Your task to perform on an android device: open app "Airtel Thanks" (install if not already installed) Image 0: 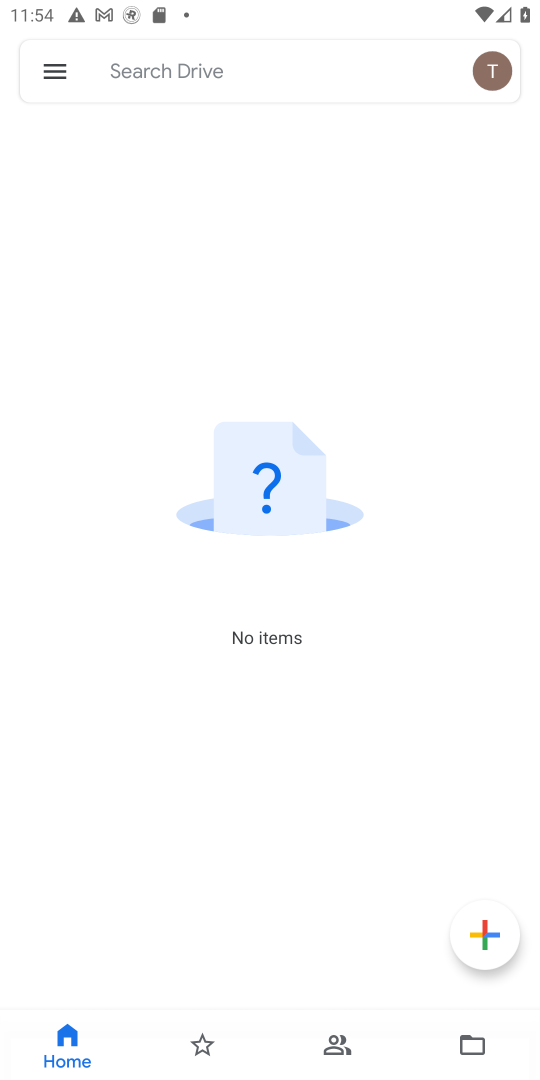
Step 0: press home button
Your task to perform on an android device: open app "Airtel Thanks" (install if not already installed) Image 1: 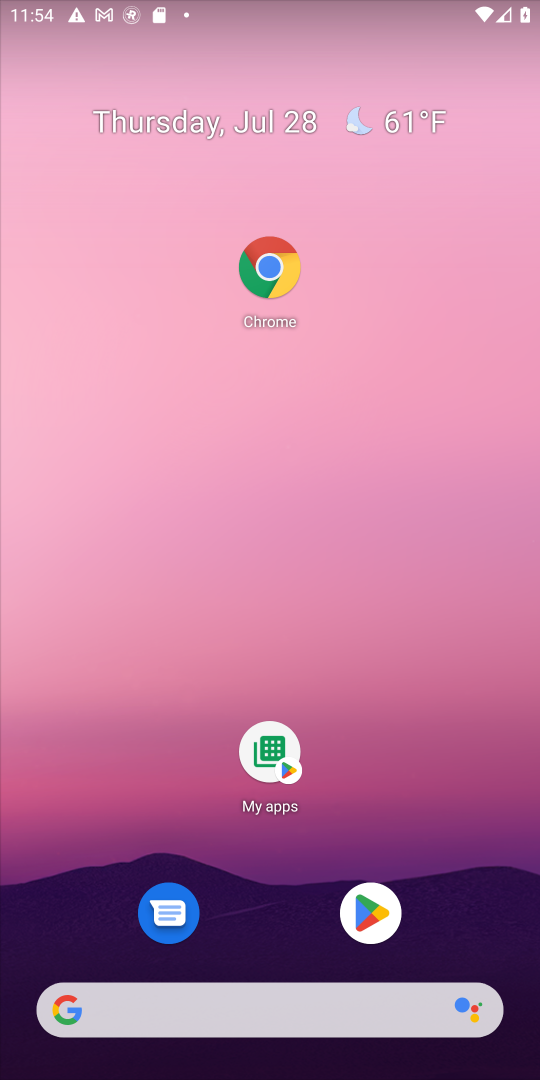
Step 1: drag from (348, 1040) to (357, 514)
Your task to perform on an android device: open app "Airtel Thanks" (install if not already installed) Image 2: 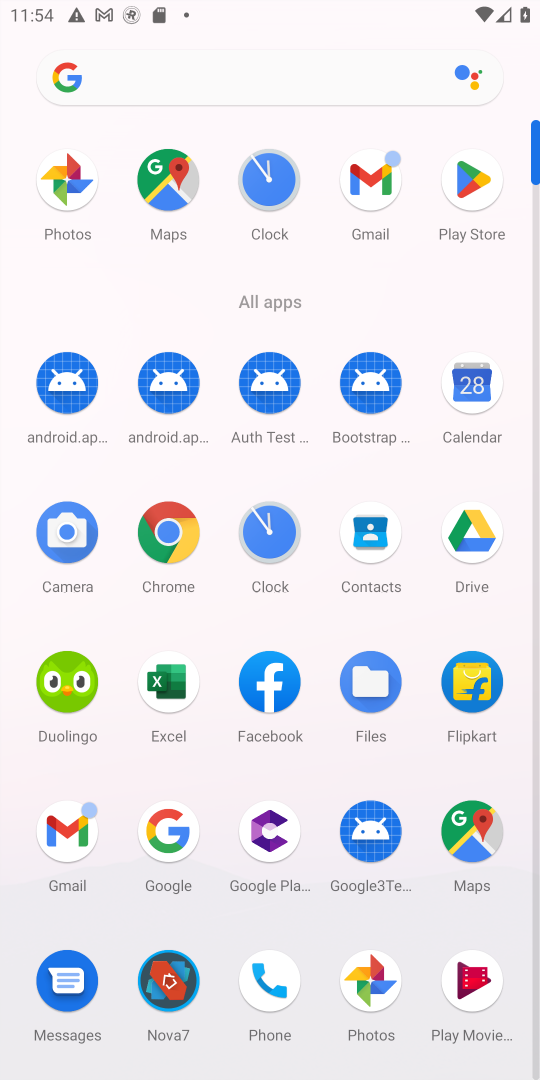
Step 2: click (469, 193)
Your task to perform on an android device: open app "Airtel Thanks" (install if not already installed) Image 3: 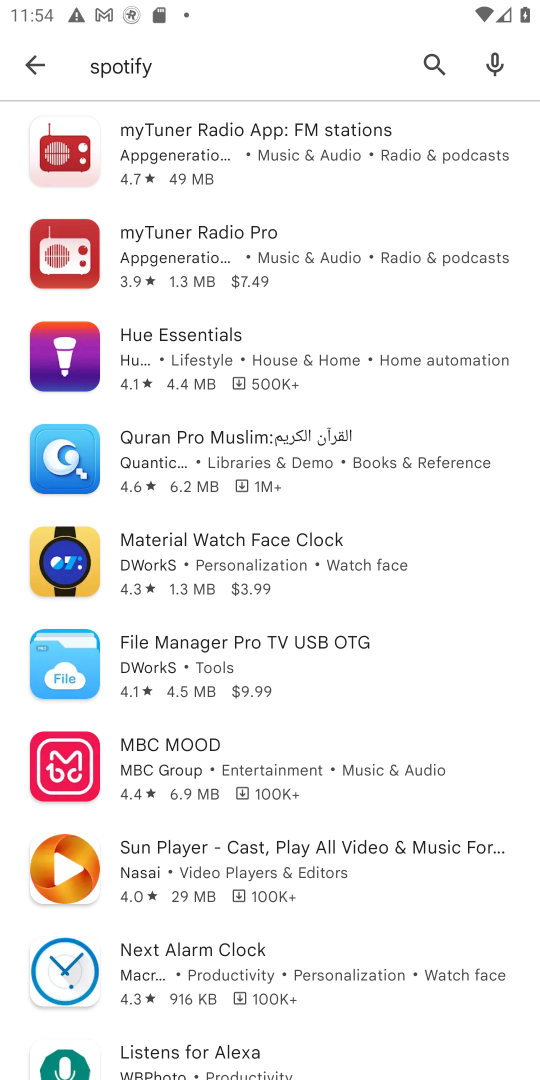
Step 3: click (412, 46)
Your task to perform on an android device: open app "Airtel Thanks" (install if not already installed) Image 4: 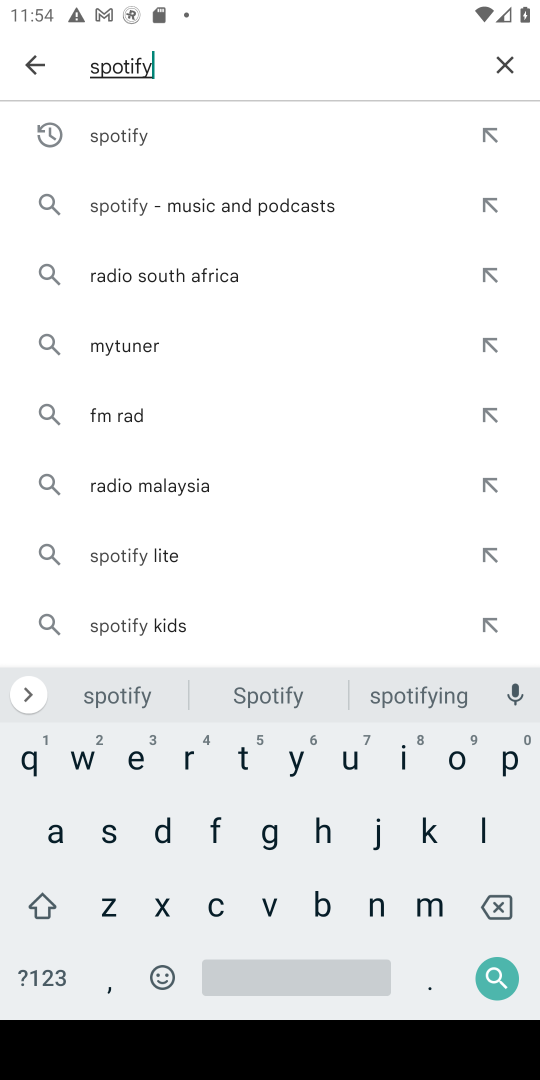
Step 4: click (511, 63)
Your task to perform on an android device: open app "Airtel Thanks" (install if not already installed) Image 5: 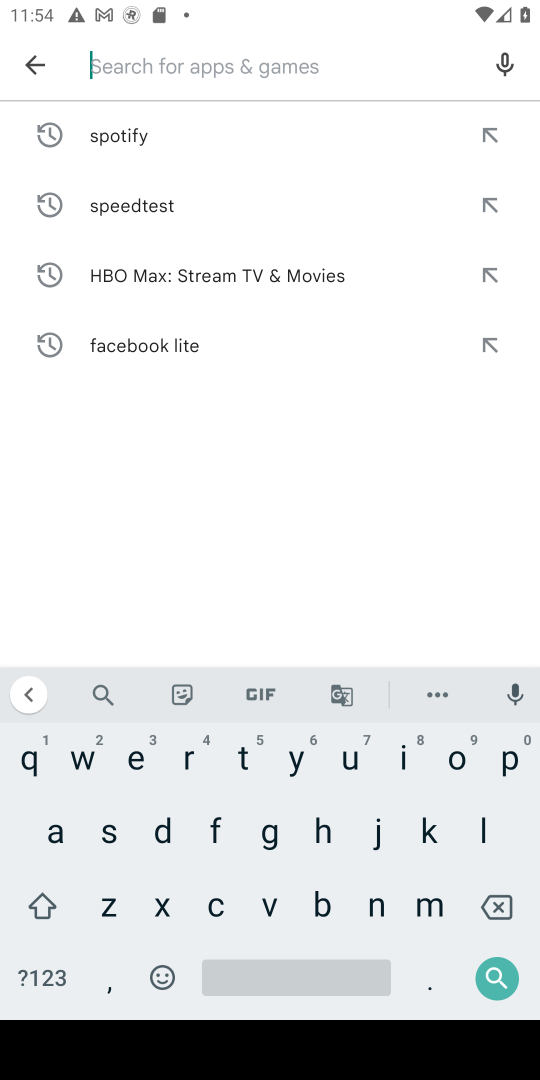
Step 5: click (46, 831)
Your task to perform on an android device: open app "Airtel Thanks" (install if not already installed) Image 6: 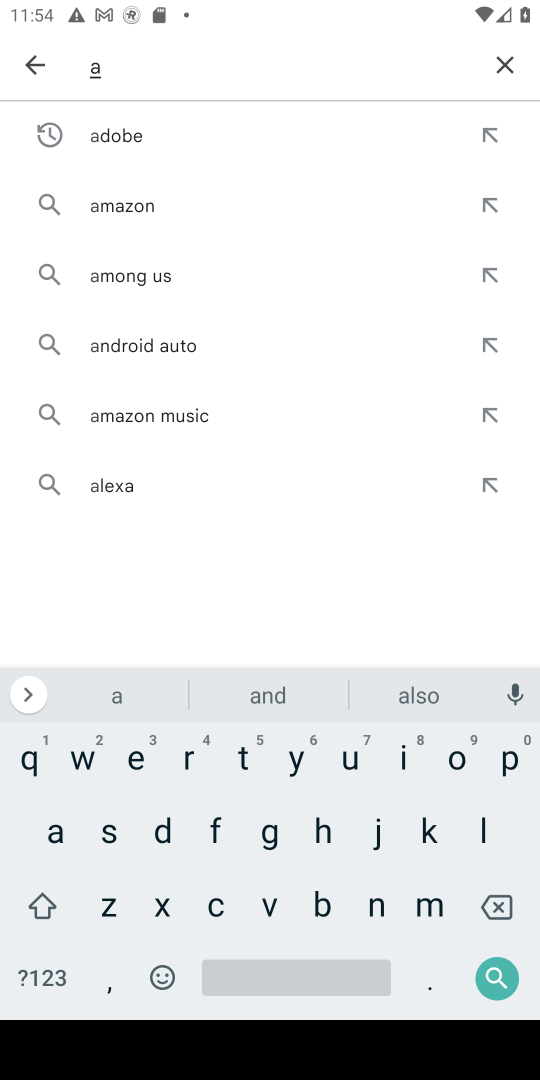
Step 6: click (396, 759)
Your task to perform on an android device: open app "Airtel Thanks" (install if not already installed) Image 7: 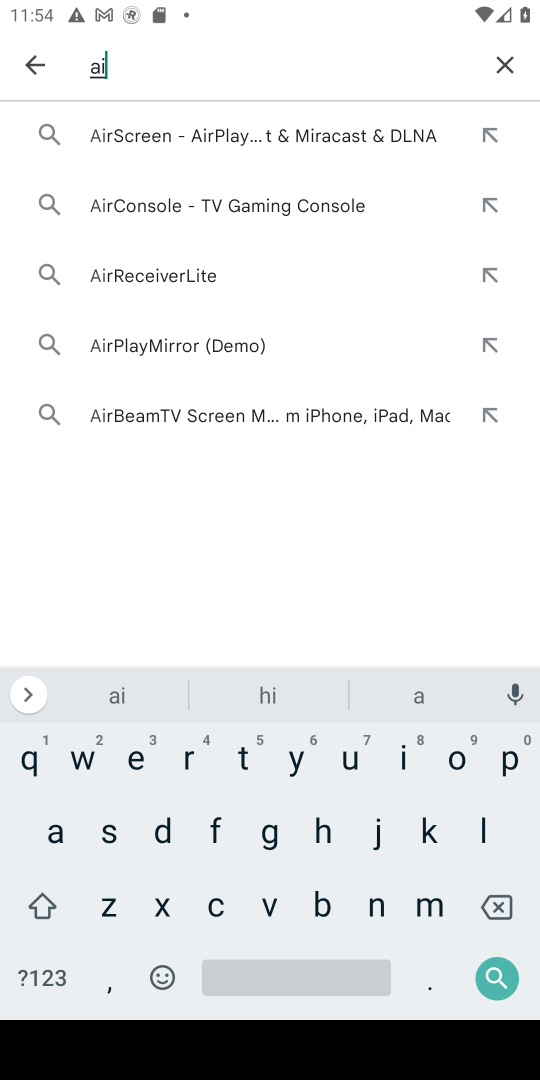
Step 7: click (173, 753)
Your task to perform on an android device: open app "Airtel Thanks" (install if not already installed) Image 8: 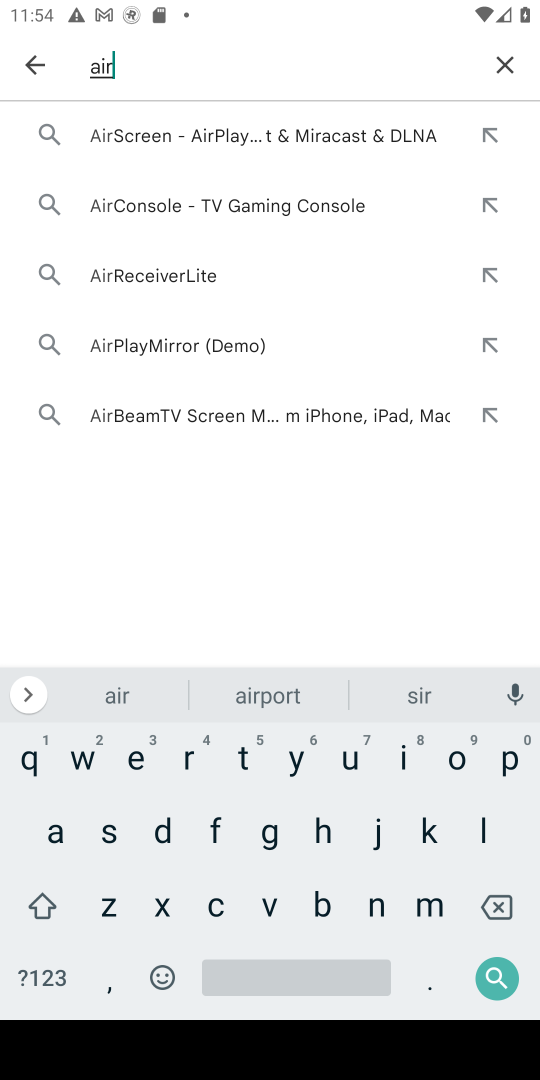
Step 8: click (244, 756)
Your task to perform on an android device: open app "Airtel Thanks" (install if not already installed) Image 9: 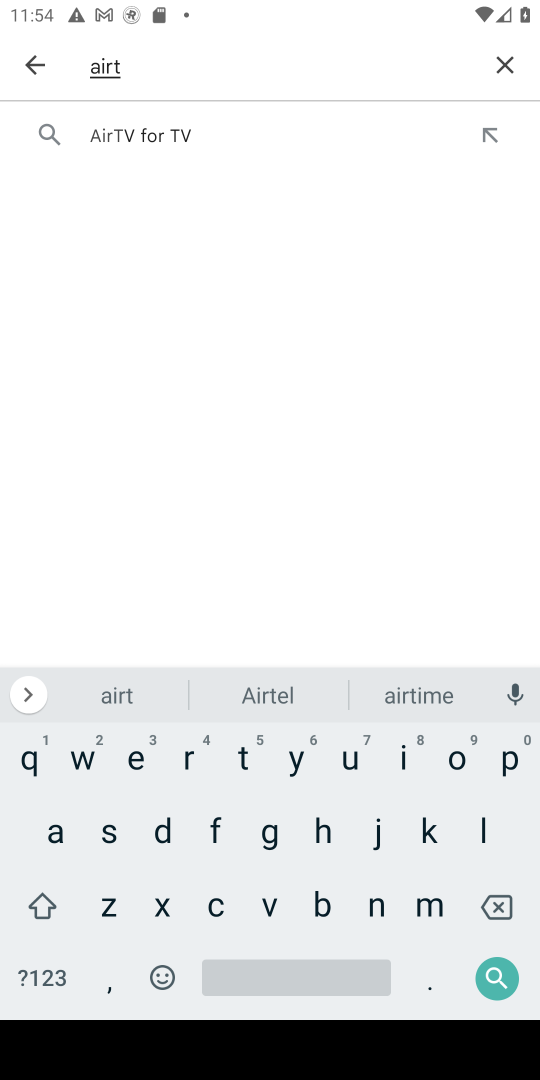
Step 9: click (277, 705)
Your task to perform on an android device: open app "Airtel Thanks" (install if not already installed) Image 10: 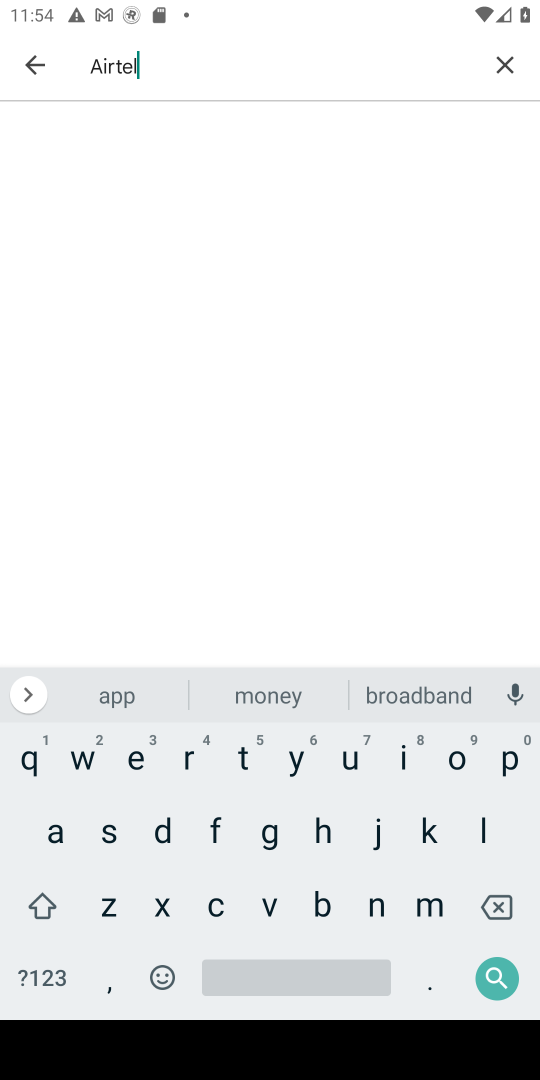
Step 10: click (241, 757)
Your task to perform on an android device: open app "Airtel Thanks" (install if not already installed) Image 11: 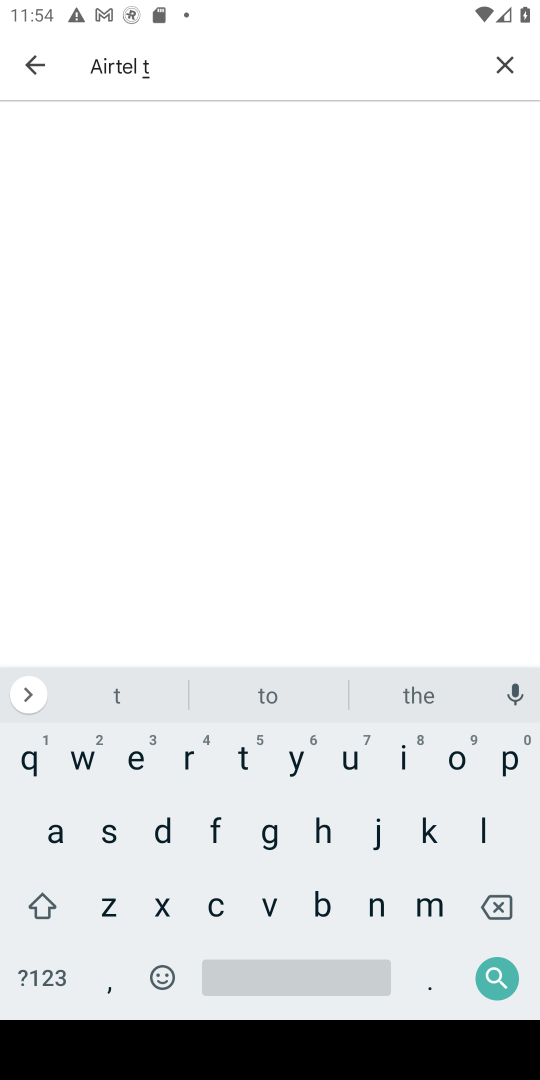
Step 11: click (325, 829)
Your task to perform on an android device: open app "Airtel Thanks" (install if not already installed) Image 12: 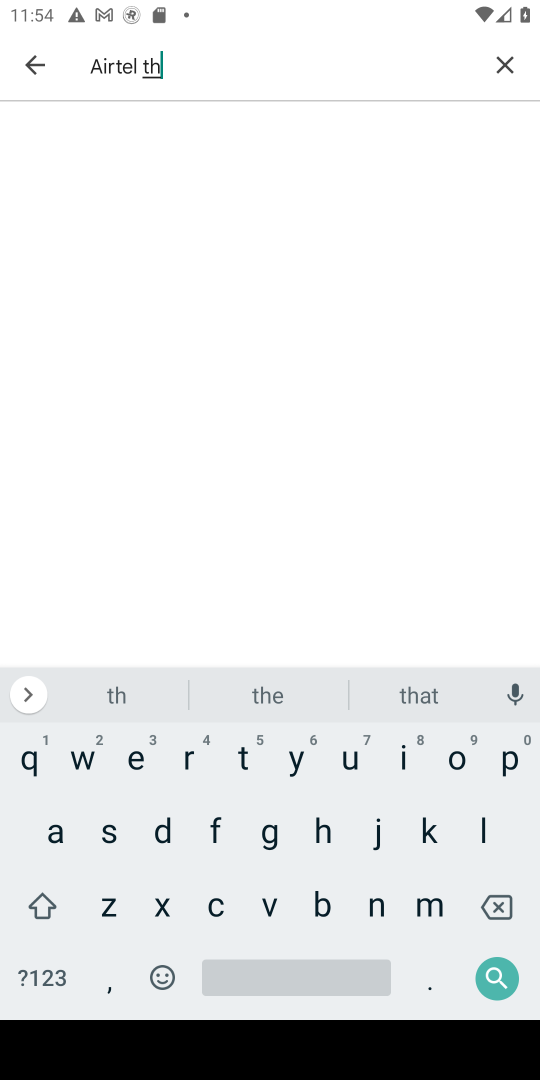
Step 12: click (46, 839)
Your task to perform on an android device: open app "Airtel Thanks" (install if not already installed) Image 13: 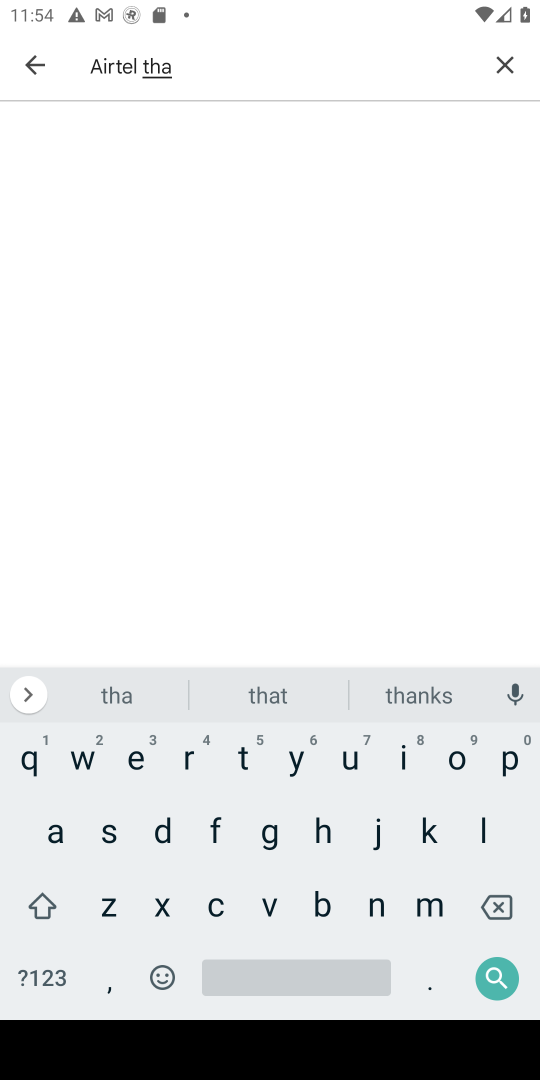
Step 13: click (414, 698)
Your task to perform on an android device: open app "Airtel Thanks" (install if not already installed) Image 14: 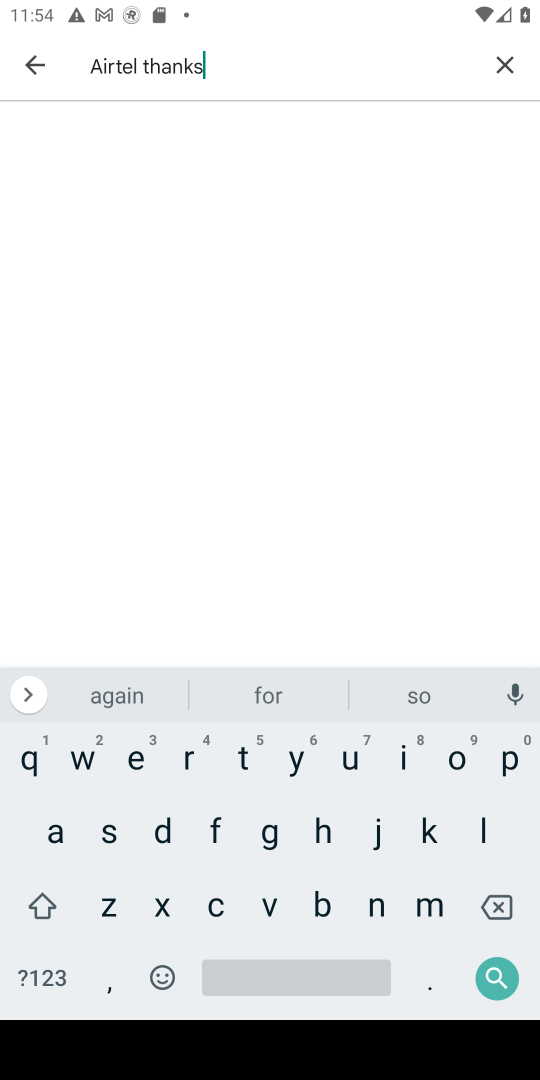
Step 14: click (490, 971)
Your task to perform on an android device: open app "Airtel Thanks" (install if not already installed) Image 15: 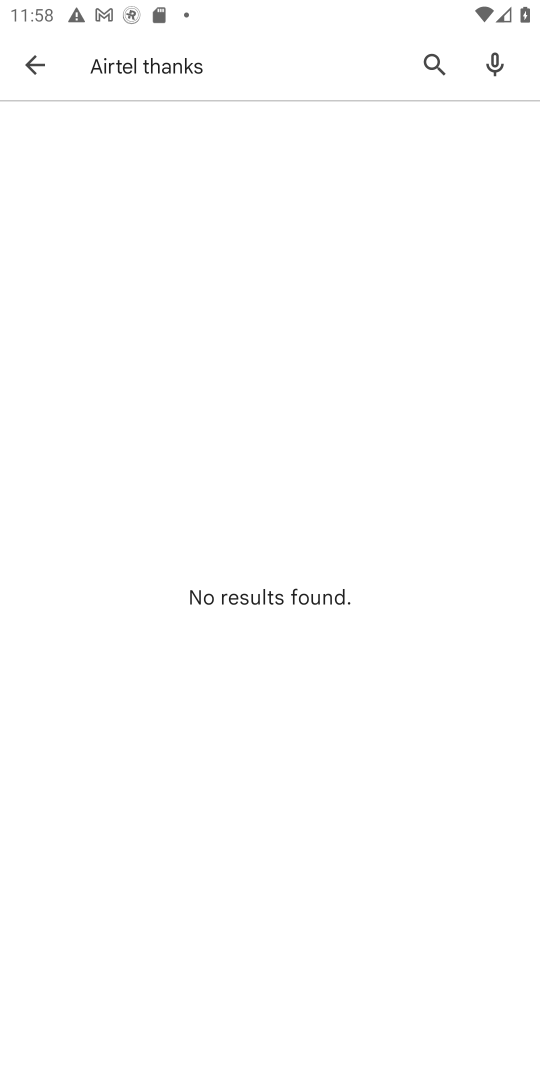
Step 15: task complete